Your task to perform on an android device: Show me the alarms in the clock app Image 0: 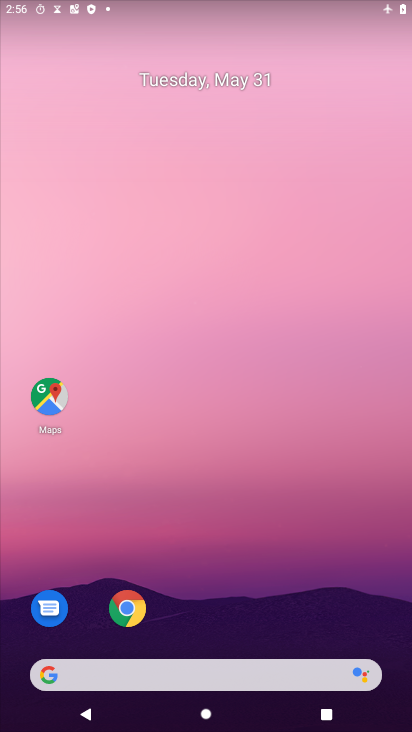
Step 0: click (320, 144)
Your task to perform on an android device: Show me the alarms in the clock app Image 1: 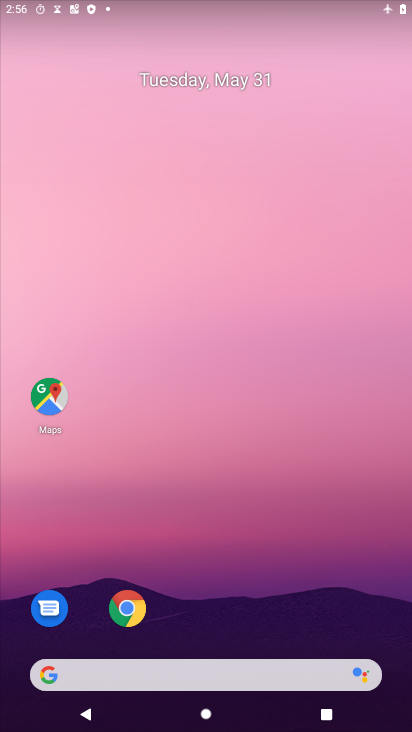
Step 1: drag from (230, 445) to (265, 315)
Your task to perform on an android device: Show me the alarms in the clock app Image 2: 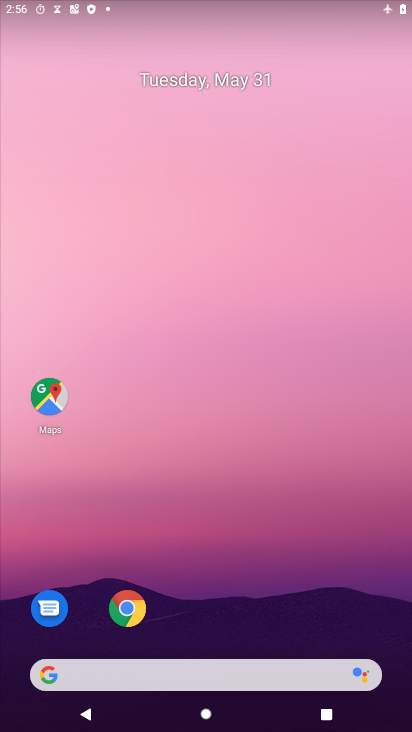
Step 2: drag from (217, 612) to (269, 152)
Your task to perform on an android device: Show me the alarms in the clock app Image 3: 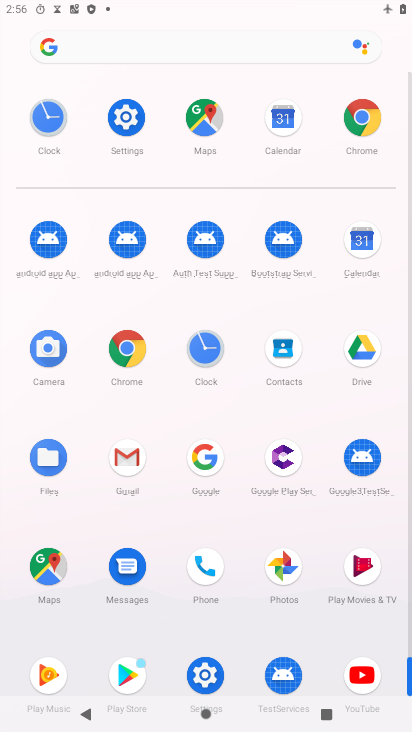
Step 3: click (202, 357)
Your task to perform on an android device: Show me the alarms in the clock app Image 4: 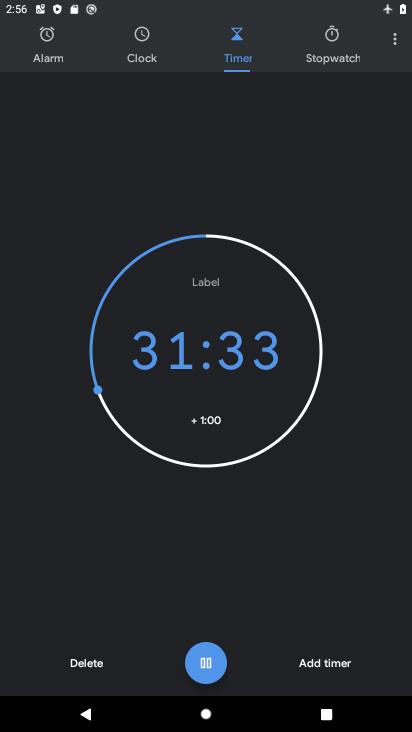
Step 4: click (35, 31)
Your task to perform on an android device: Show me the alarms in the clock app Image 5: 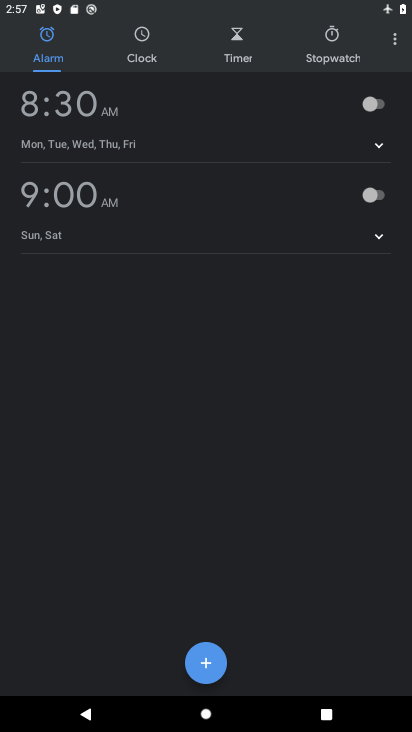
Step 5: task complete